Your task to perform on an android device: What's the latest news in space? Image 0: 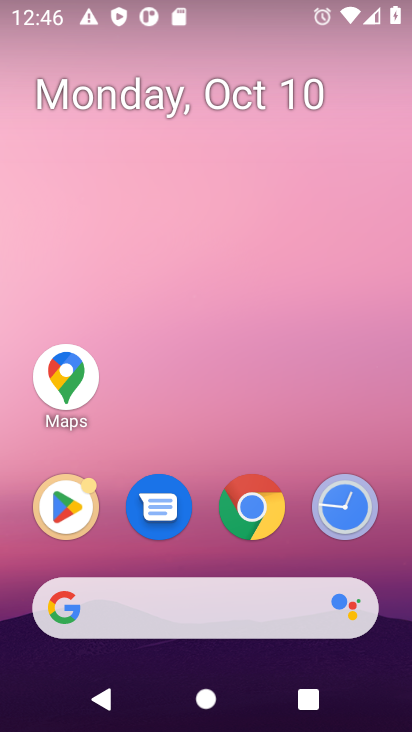
Step 0: press home button
Your task to perform on an android device: What's the latest news in space? Image 1: 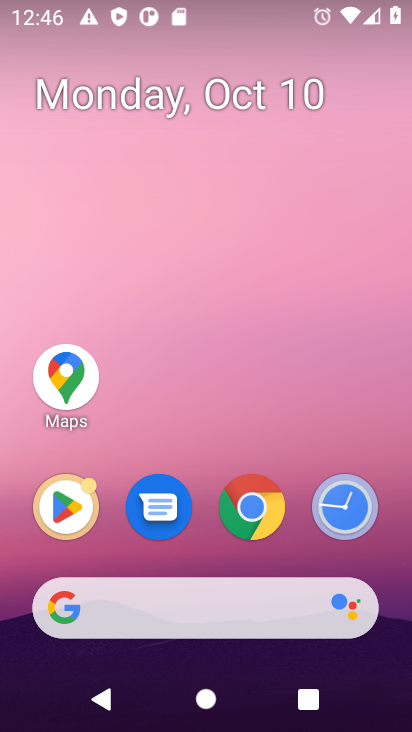
Step 1: click (286, 617)
Your task to perform on an android device: What's the latest news in space? Image 2: 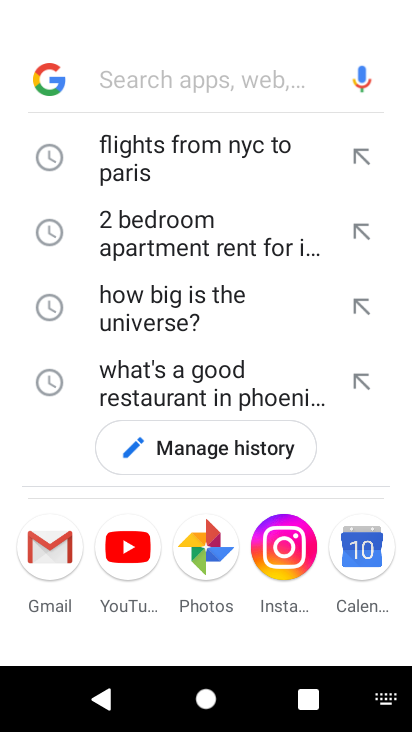
Step 2: type "What's the latest news in space"
Your task to perform on an android device: What's the latest news in space? Image 3: 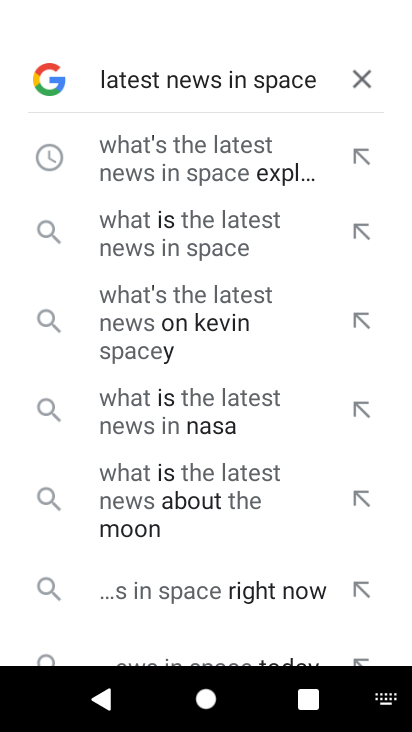
Step 3: press enter
Your task to perform on an android device: What's the latest news in space? Image 4: 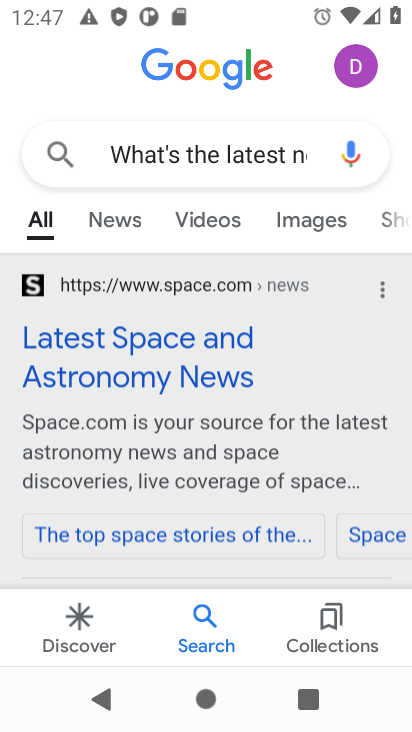
Step 4: click (208, 368)
Your task to perform on an android device: What's the latest news in space? Image 5: 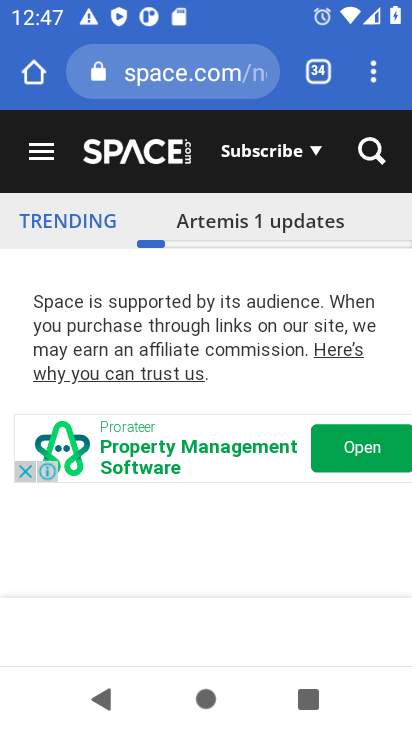
Step 5: task complete